Your task to perform on an android device: toggle notifications settings in the gmail app Image 0: 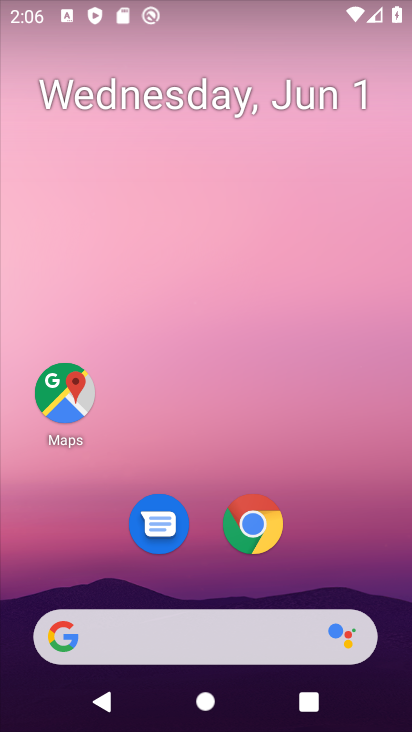
Step 0: drag from (222, 452) to (241, 14)
Your task to perform on an android device: toggle notifications settings in the gmail app Image 1: 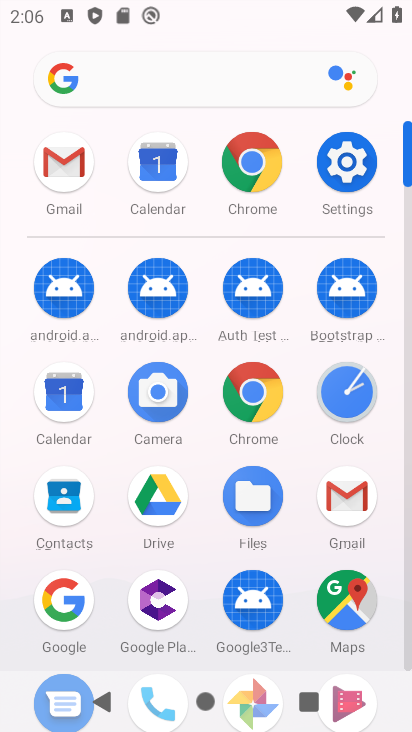
Step 1: click (348, 484)
Your task to perform on an android device: toggle notifications settings in the gmail app Image 2: 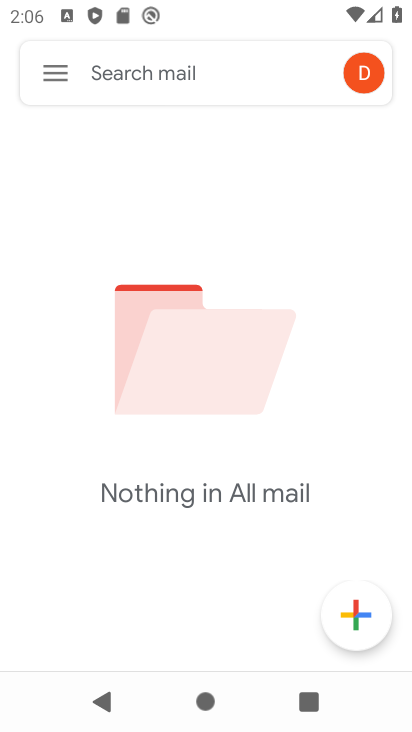
Step 2: click (62, 75)
Your task to perform on an android device: toggle notifications settings in the gmail app Image 3: 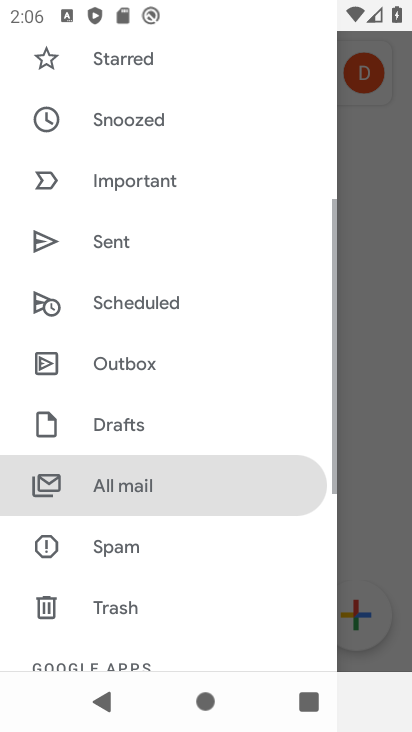
Step 3: drag from (206, 565) to (202, 162)
Your task to perform on an android device: toggle notifications settings in the gmail app Image 4: 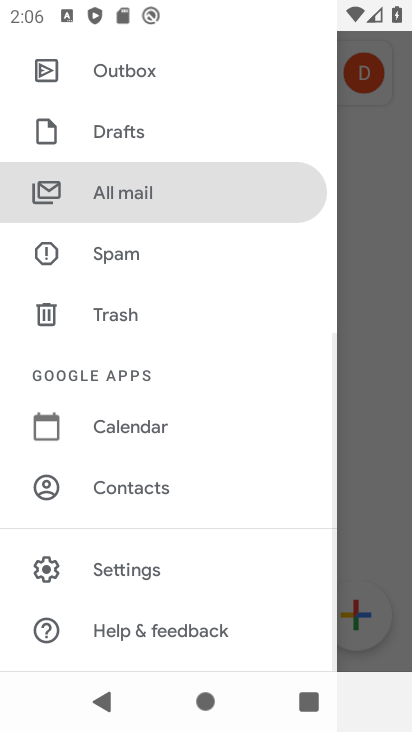
Step 4: click (157, 565)
Your task to perform on an android device: toggle notifications settings in the gmail app Image 5: 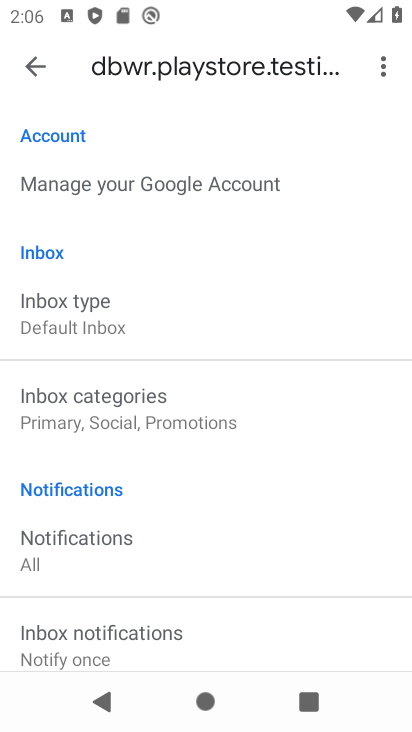
Step 5: drag from (259, 581) to (232, 137)
Your task to perform on an android device: toggle notifications settings in the gmail app Image 6: 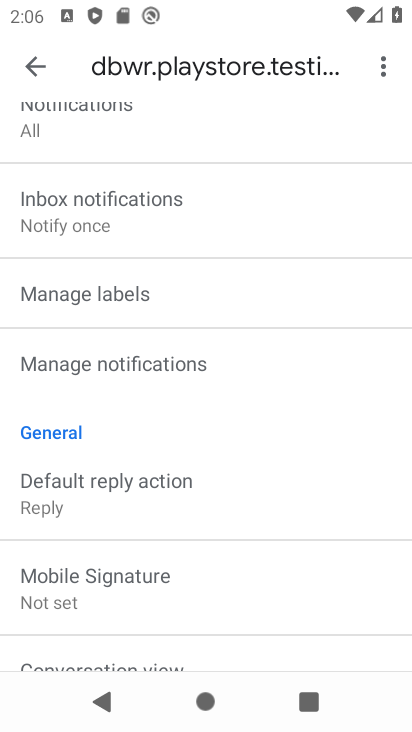
Step 6: drag from (236, 485) to (251, 368)
Your task to perform on an android device: toggle notifications settings in the gmail app Image 7: 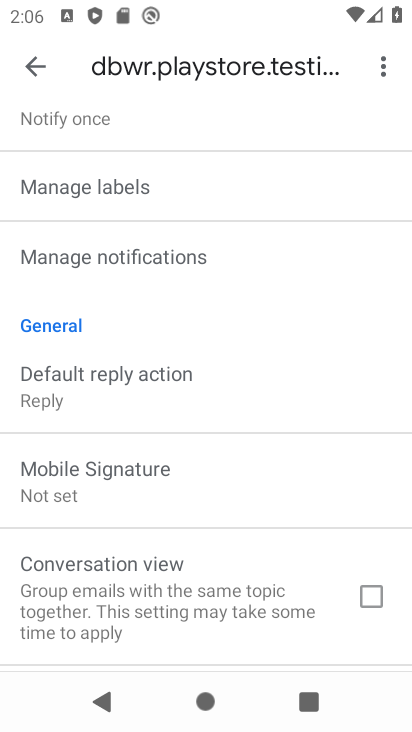
Step 7: click (276, 268)
Your task to perform on an android device: toggle notifications settings in the gmail app Image 8: 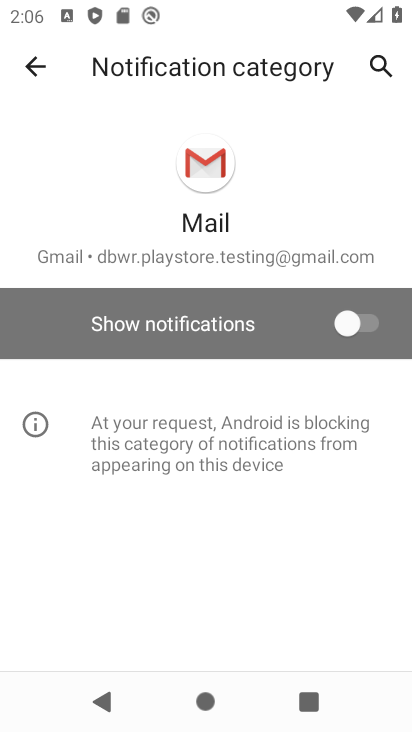
Step 8: click (340, 326)
Your task to perform on an android device: toggle notifications settings in the gmail app Image 9: 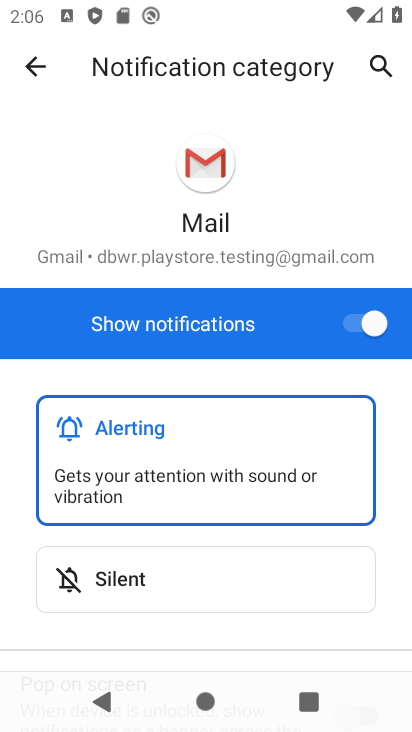
Step 9: task complete